Your task to perform on an android device: turn off notifications settings in the gmail app Image 0: 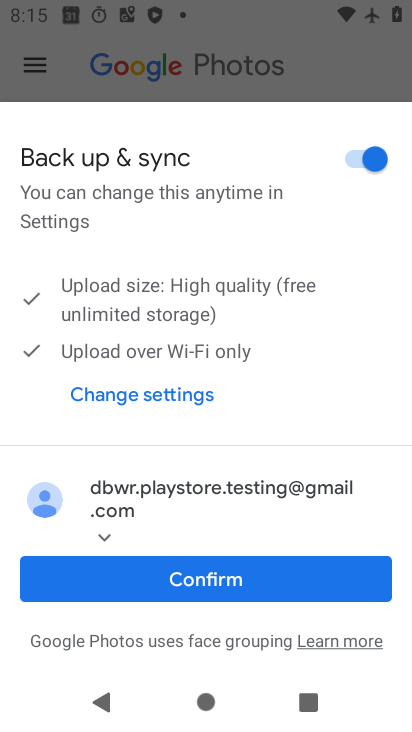
Step 0: press home button
Your task to perform on an android device: turn off notifications settings in the gmail app Image 1: 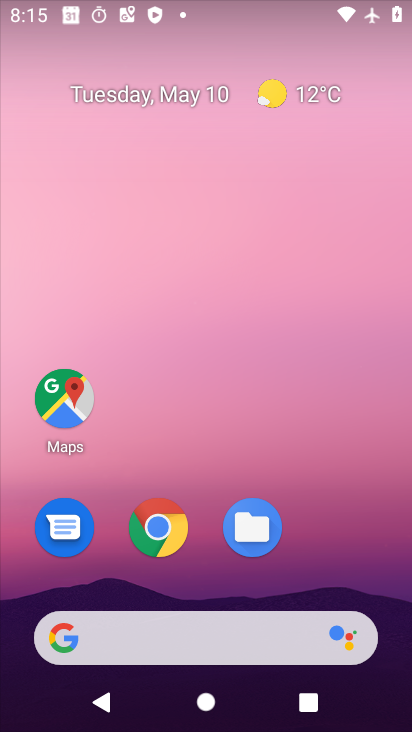
Step 1: drag from (338, 581) to (352, 133)
Your task to perform on an android device: turn off notifications settings in the gmail app Image 2: 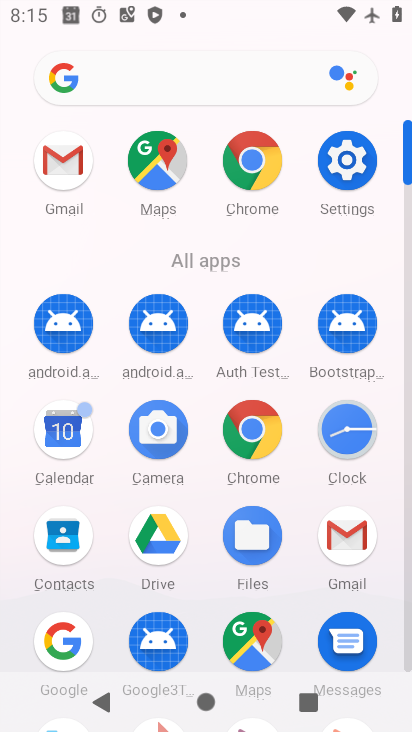
Step 2: click (341, 539)
Your task to perform on an android device: turn off notifications settings in the gmail app Image 3: 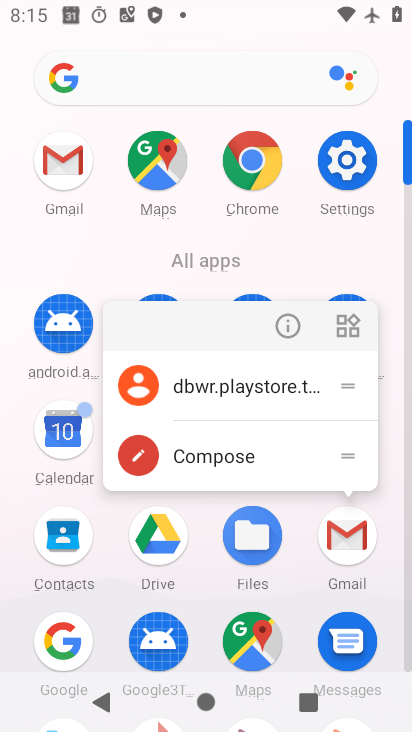
Step 3: click (342, 539)
Your task to perform on an android device: turn off notifications settings in the gmail app Image 4: 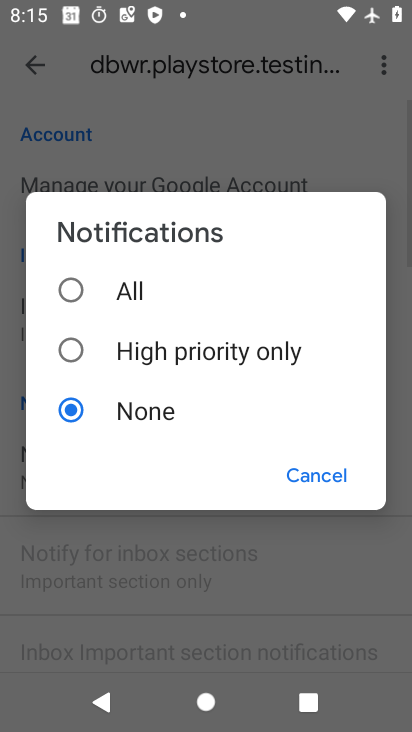
Step 4: click (337, 474)
Your task to perform on an android device: turn off notifications settings in the gmail app Image 5: 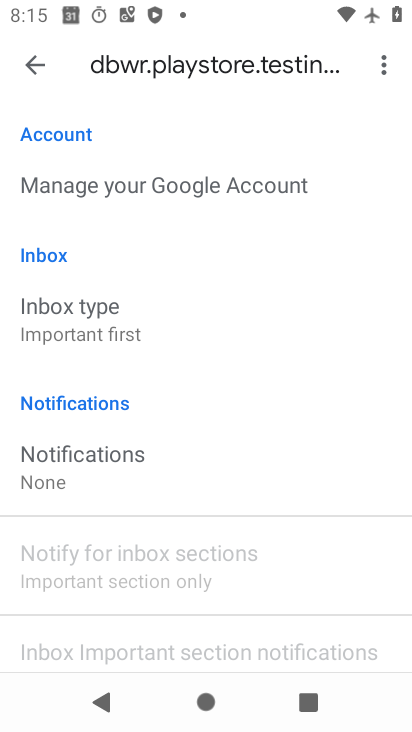
Step 5: click (77, 468)
Your task to perform on an android device: turn off notifications settings in the gmail app Image 6: 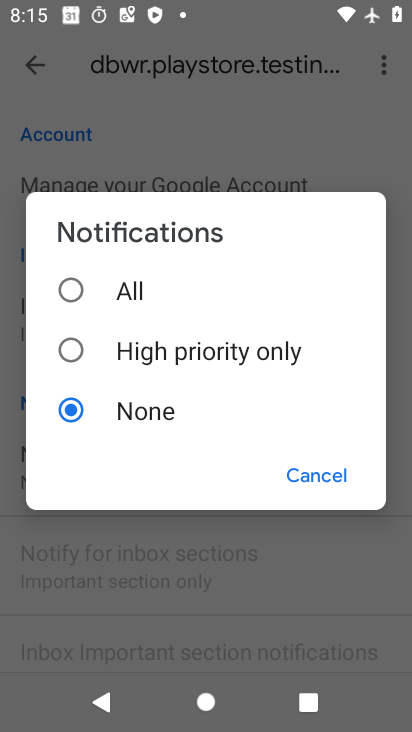
Step 6: task complete